Your task to perform on an android device: Go to sound settings Image 0: 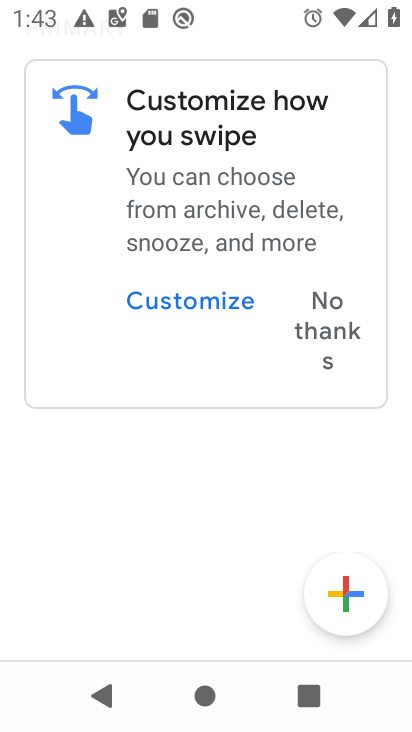
Step 0: press back button
Your task to perform on an android device: Go to sound settings Image 1: 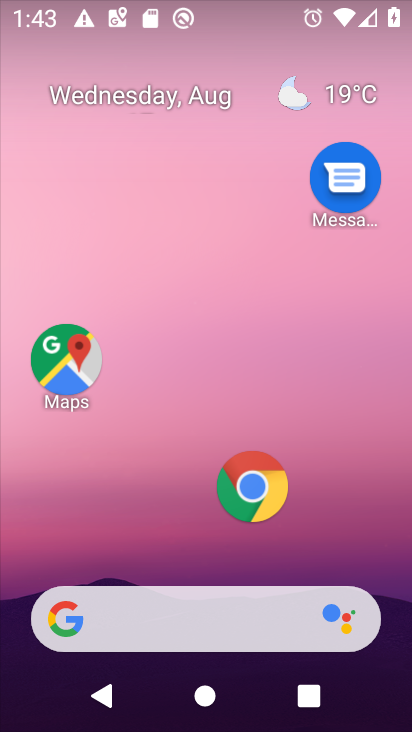
Step 1: drag from (150, 470) to (146, 183)
Your task to perform on an android device: Go to sound settings Image 2: 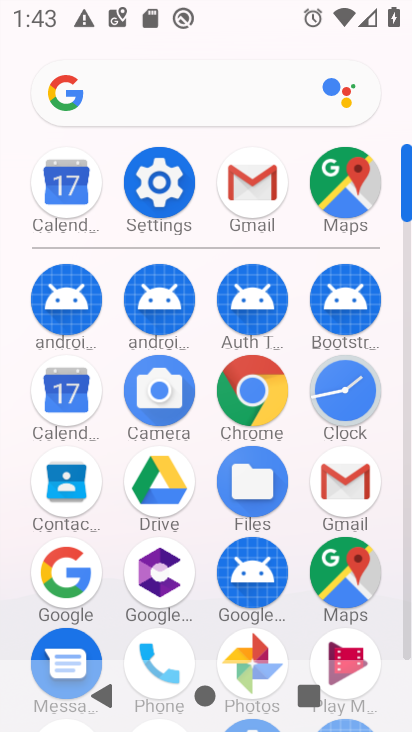
Step 2: click (146, 180)
Your task to perform on an android device: Go to sound settings Image 3: 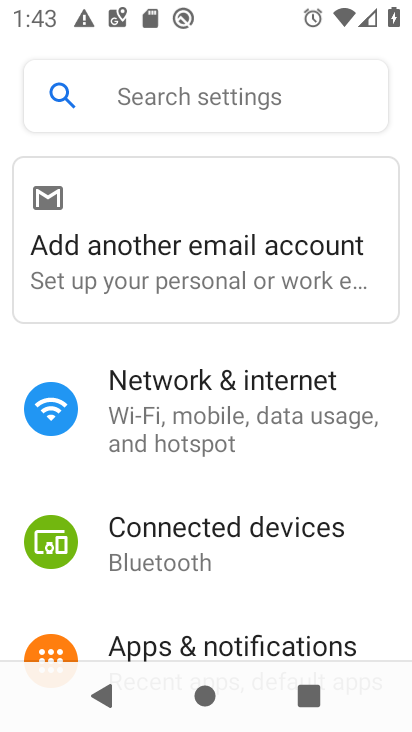
Step 3: drag from (219, 637) to (297, 59)
Your task to perform on an android device: Go to sound settings Image 4: 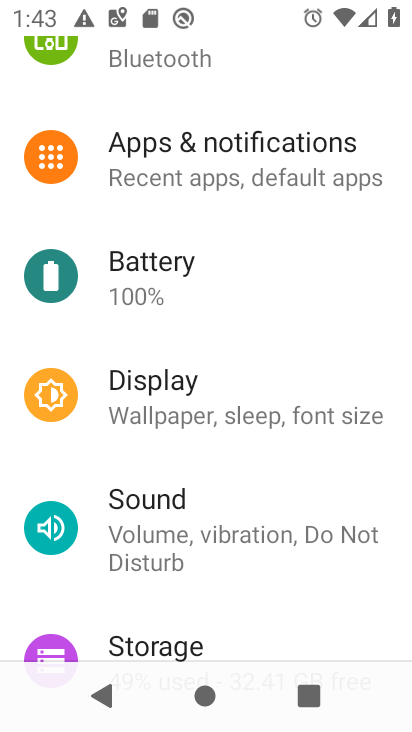
Step 4: click (197, 532)
Your task to perform on an android device: Go to sound settings Image 5: 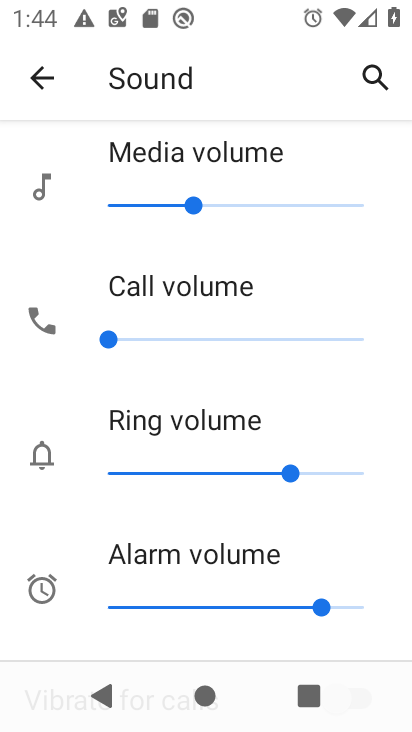
Step 5: task complete